Your task to perform on an android device: Open accessibility settings Image 0: 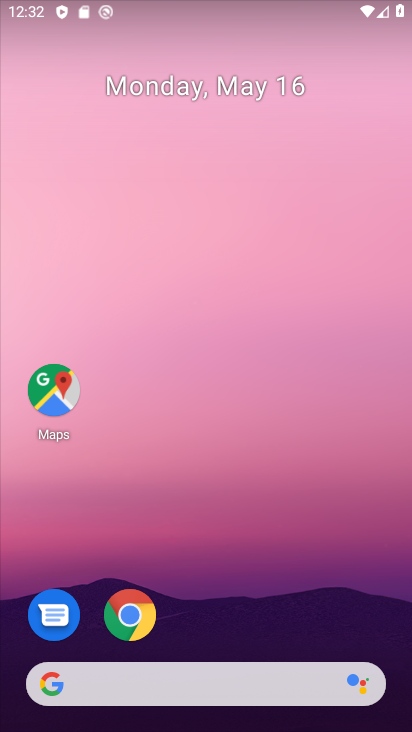
Step 0: drag from (341, 601) to (325, 196)
Your task to perform on an android device: Open accessibility settings Image 1: 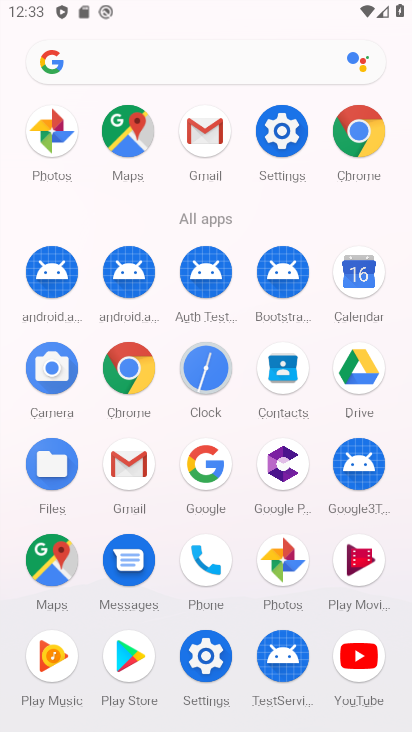
Step 1: click (295, 137)
Your task to perform on an android device: Open accessibility settings Image 2: 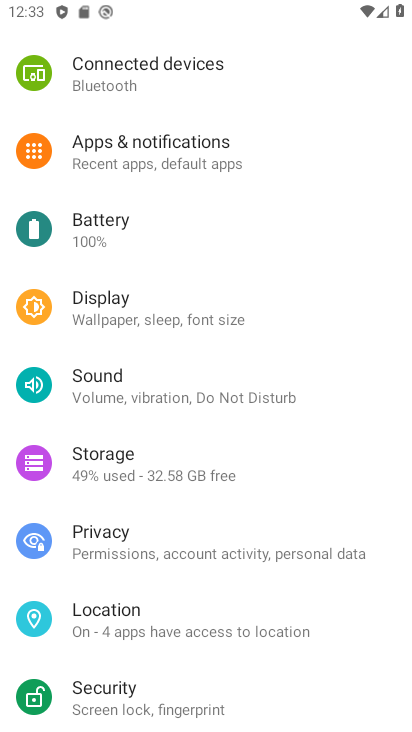
Step 2: drag from (262, 669) to (332, 200)
Your task to perform on an android device: Open accessibility settings Image 3: 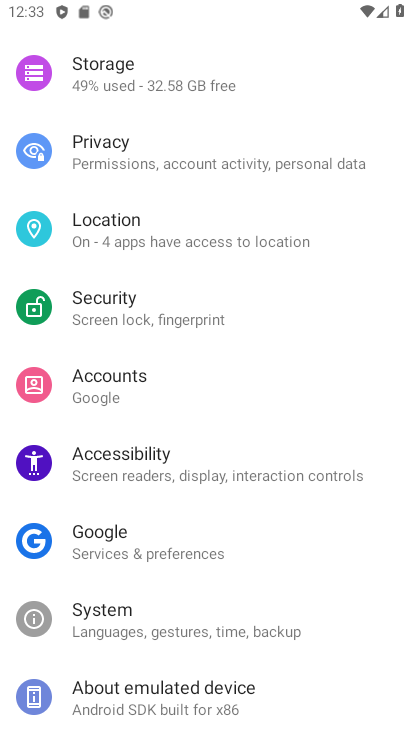
Step 3: click (208, 473)
Your task to perform on an android device: Open accessibility settings Image 4: 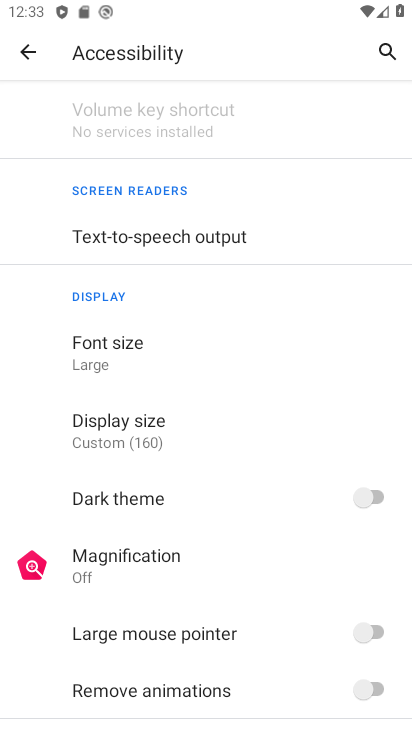
Step 4: task complete